Your task to perform on an android device: Show me the alarms in the clock app Image 0: 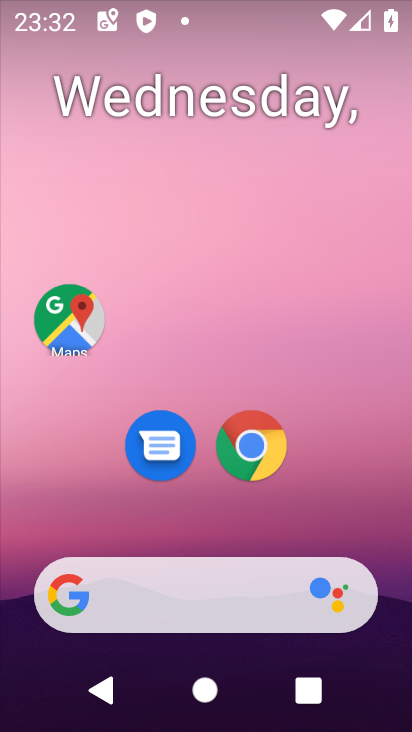
Step 0: drag from (313, 509) to (332, 155)
Your task to perform on an android device: Show me the alarms in the clock app Image 1: 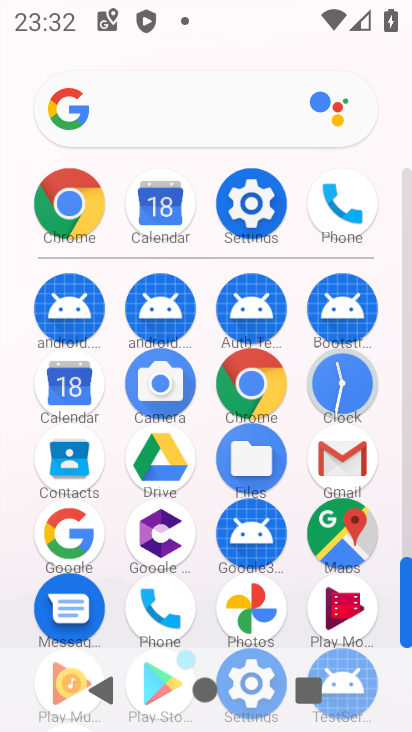
Step 1: click (337, 370)
Your task to perform on an android device: Show me the alarms in the clock app Image 2: 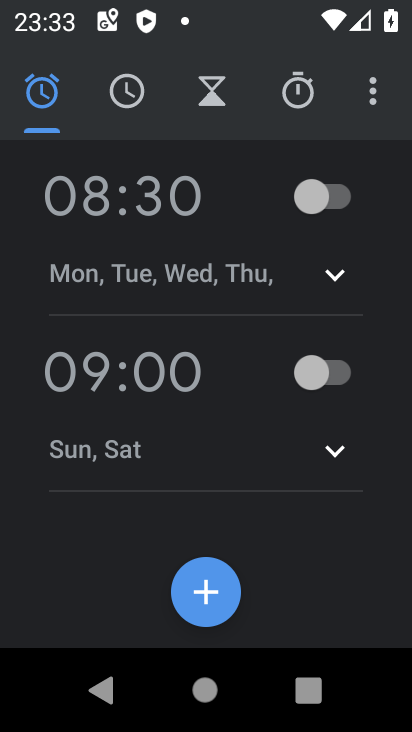
Step 2: task complete